Your task to perform on an android device: open app "HBO Max: Stream TV & Movies" (install if not already installed) and go to login screen Image 0: 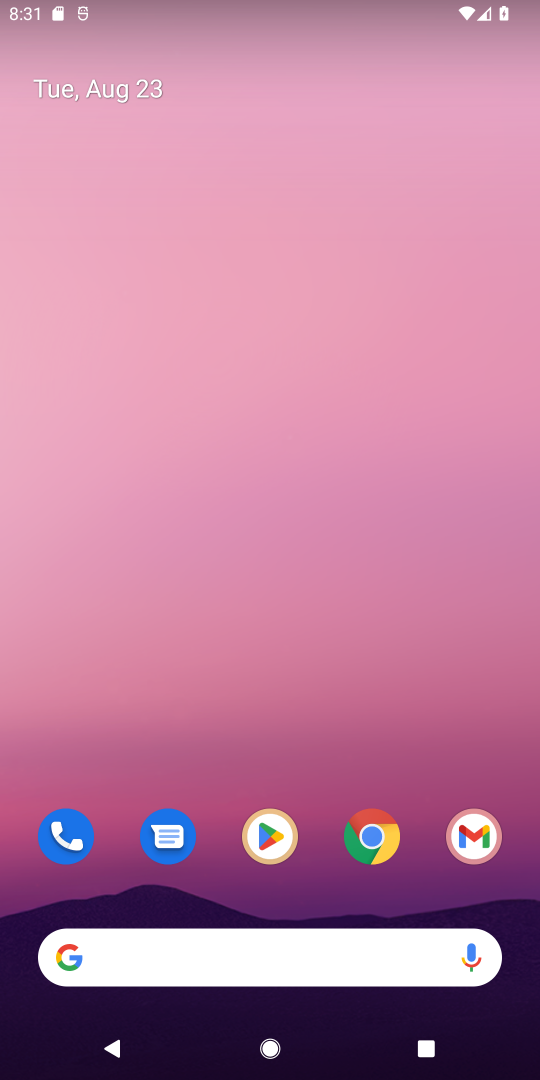
Step 0: click (271, 838)
Your task to perform on an android device: open app "HBO Max: Stream TV & Movies" (install if not already installed) and go to login screen Image 1: 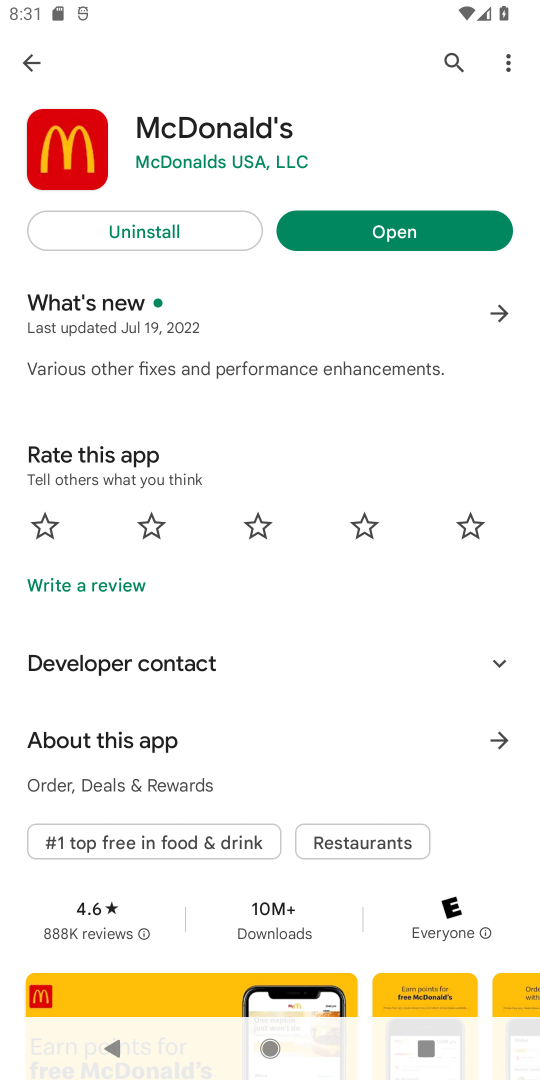
Step 1: click (448, 63)
Your task to perform on an android device: open app "HBO Max: Stream TV & Movies" (install if not already installed) and go to login screen Image 2: 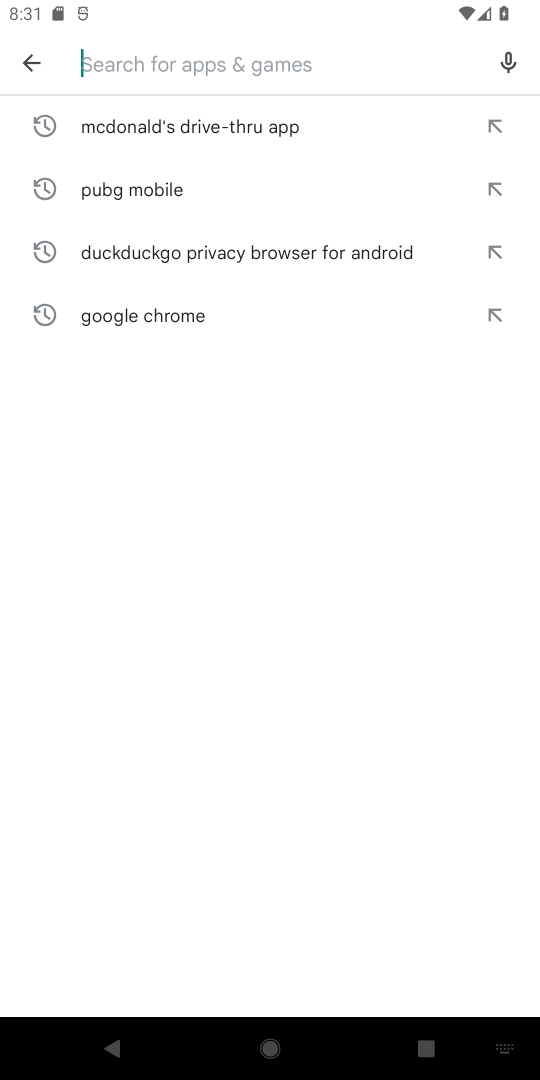
Step 2: type "HBO Max: Stream TV & Movies"
Your task to perform on an android device: open app "HBO Max: Stream TV & Movies" (install if not already installed) and go to login screen Image 3: 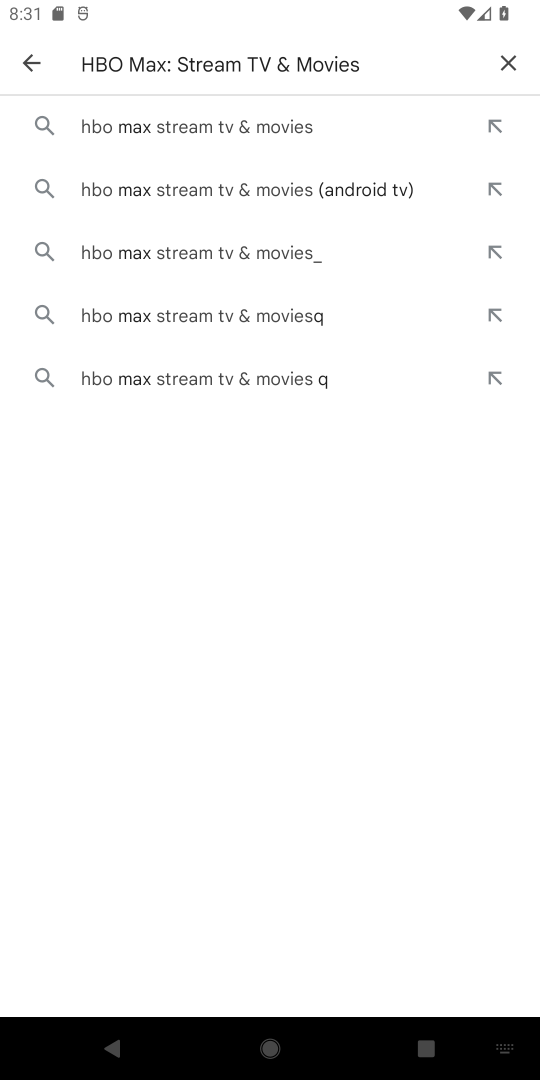
Step 3: click (277, 128)
Your task to perform on an android device: open app "HBO Max: Stream TV & Movies" (install if not already installed) and go to login screen Image 4: 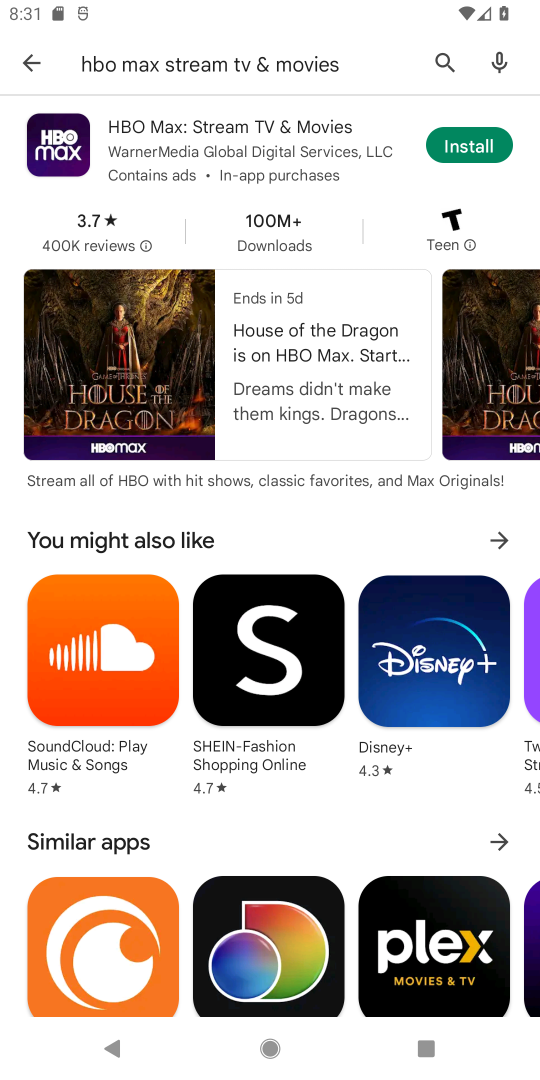
Step 4: click (486, 152)
Your task to perform on an android device: open app "HBO Max: Stream TV & Movies" (install if not already installed) and go to login screen Image 5: 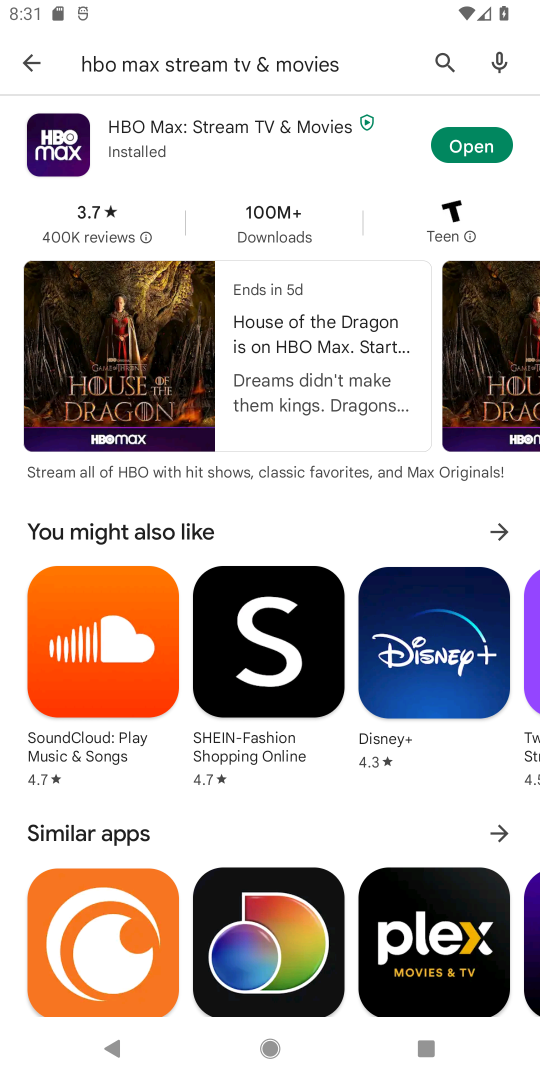
Step 5: click (475, 150)
Your task to perform on an android device: open app "HBO Max: Stream TV & Movies" (install if not already installed) and go to login screen Image 6: 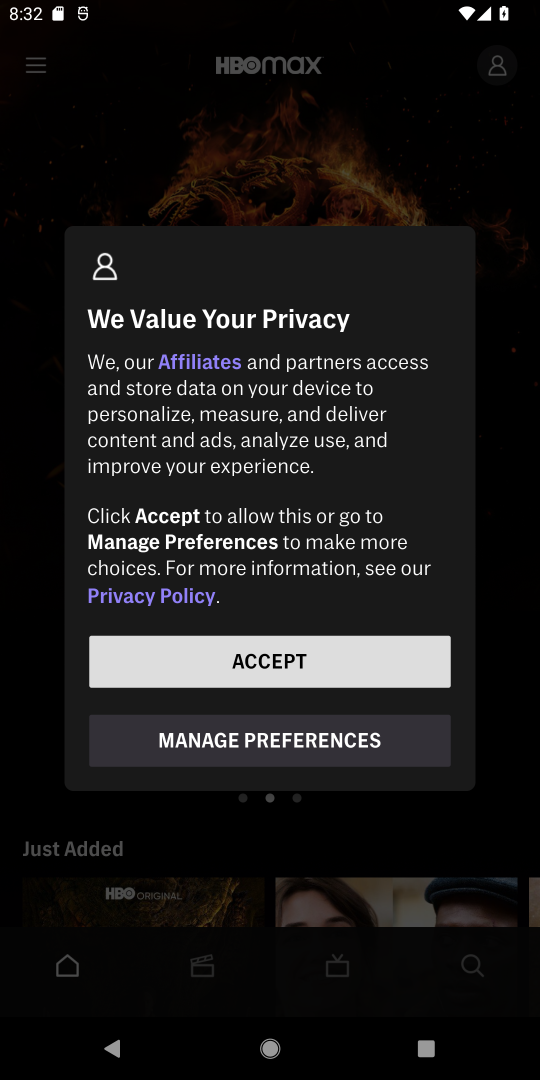
Step 6: task complete